Your task to perform on an android device: What's the weather today? Image 0: 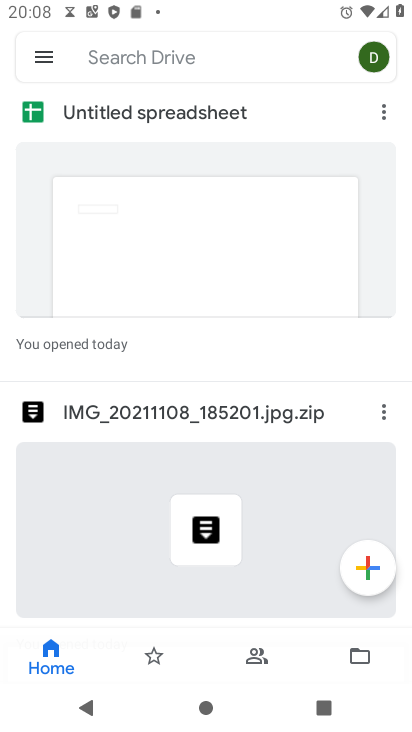
Step 0: press home button
Your task to perform on an android device: What's the weather today? Image 1: 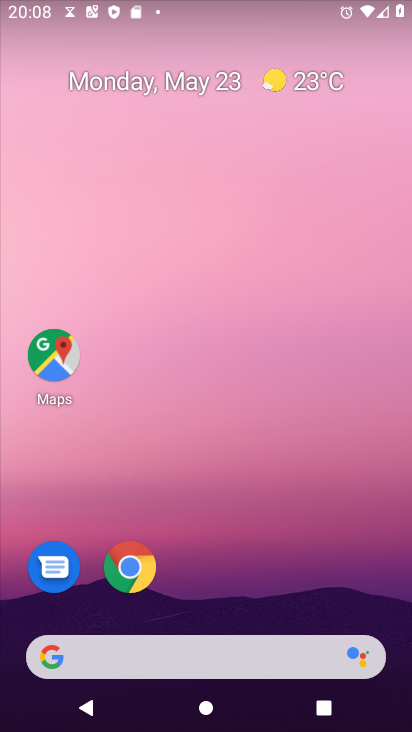
Step 1: click (137, 563)
Your task to perform on an android device: What's the weather today? Image 2: 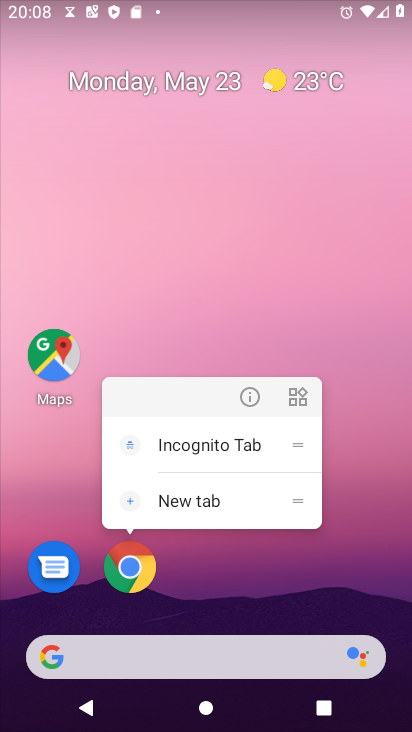
Step 2: click (124, 556)
Your task to perform on an android device: What's the weather today? Image 3: 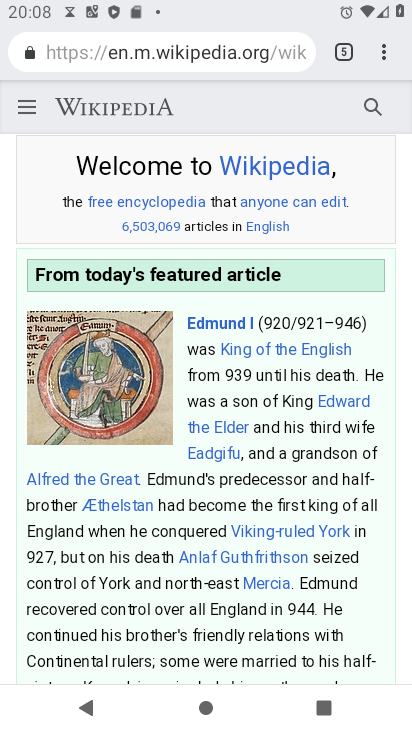
Step 3: click (387, 52)
Your task to perform on an android device: What's the weather today? Image 4: 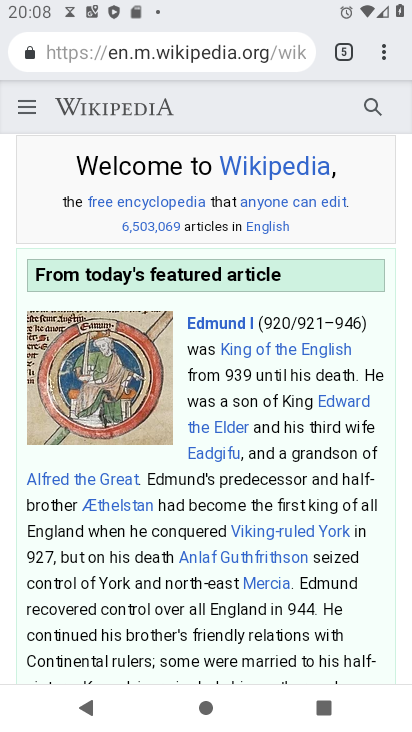
Step 4: click (384, 52)
Your task to perform on an android device: What's the weather today? Image 5: 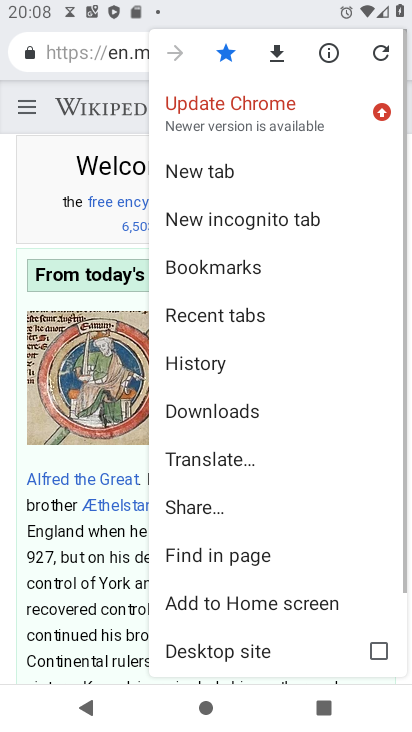
Step 5: click (208, 140)
Your task to perform on an android device: What's the weather today? Image 6: 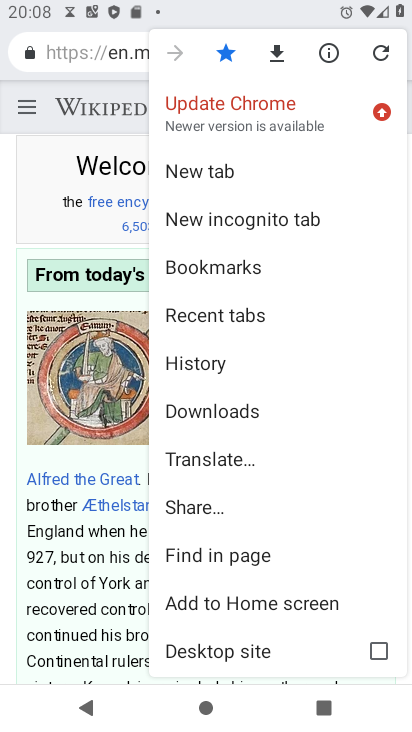
Step 6: click (216, 155)
Your task to perform on an android device: What's the weather today? Image 7: 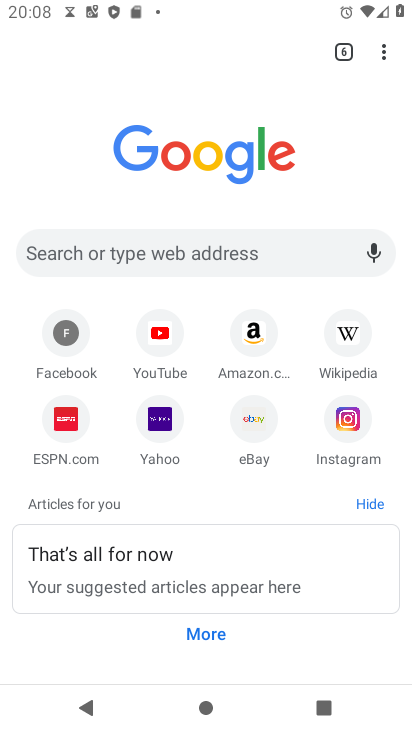
Step 7: click (201, 248)
Your task to perform on an android device: What's the weather today? Image 8: 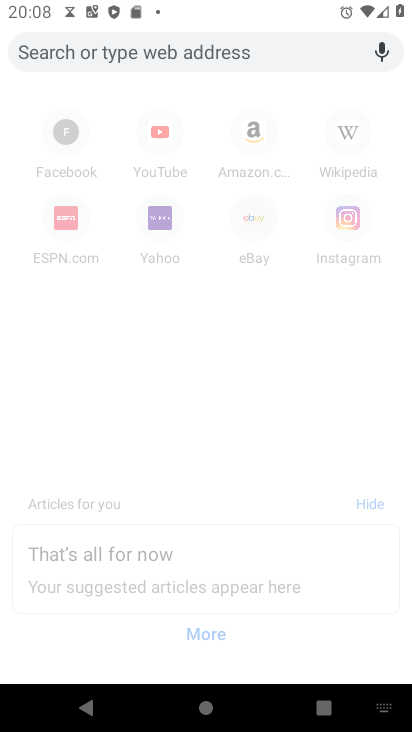
Step 8: type "What's the weather today?"
Your task to perform on an android device: What's the weather today? Image 9: 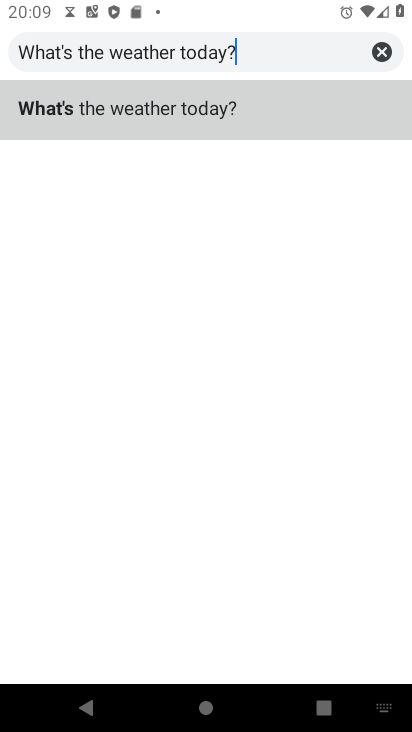
Step 9: click (308, 109)
Your task to perform on an android device: What's the weather today? Image 10: 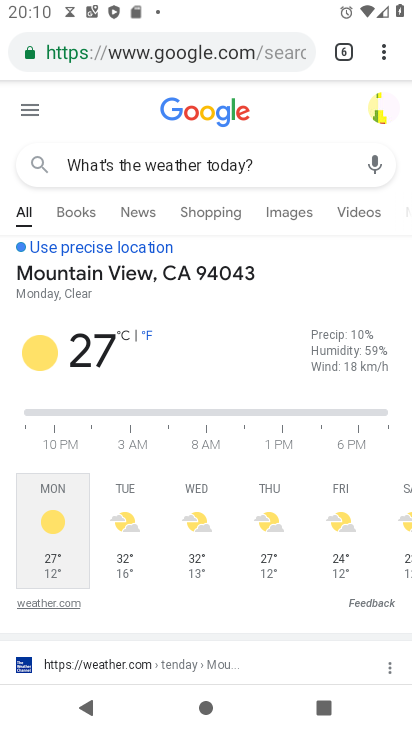
Step 10: task complete